Your task to perform on an android device: toggle improve location accuracy Image 0: 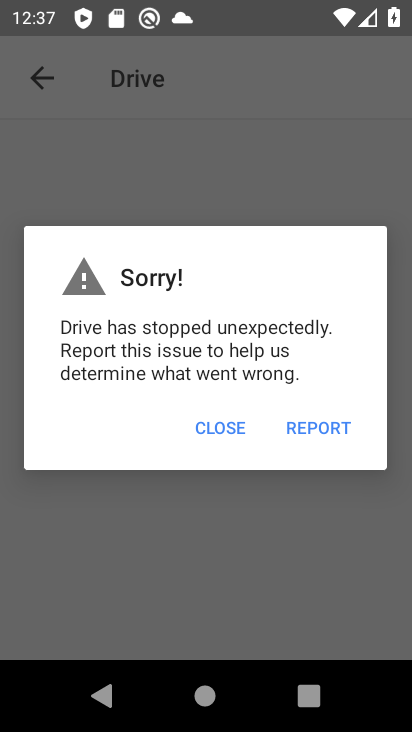
Step 0: press home button
Your task to perform on an android device: toggle improve location accuracy Image 1: 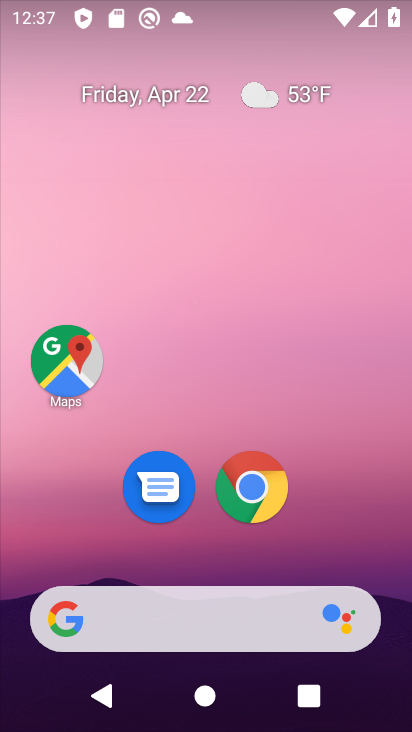
Step 1: drag from (147, 531) to (153, 37)
Your task to perform on an android device: toggle improve location accuracy Image 2: 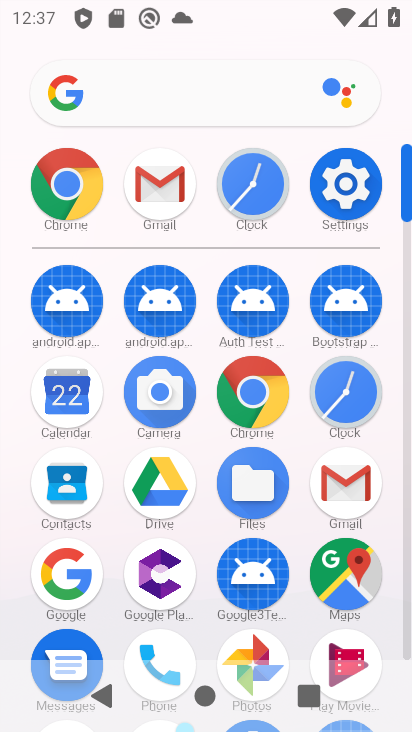
Step 2: click (369, 181)
Your task to perform on an android device: toggle improve location accuracy Image 3: 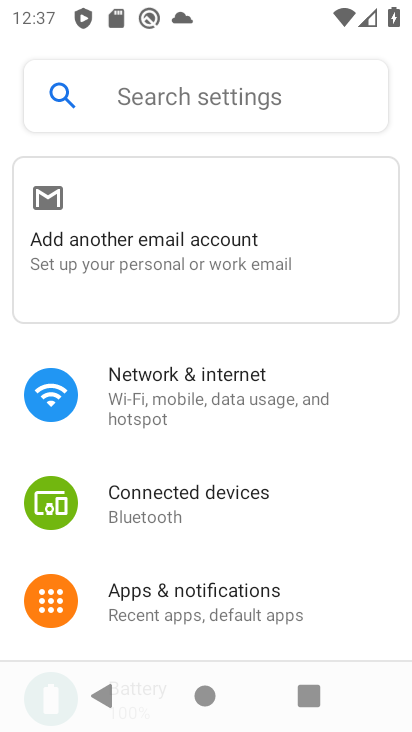
Step 3: drag from (83, 549) to (71, 198)
Your task to perform on an android device: toggle improve location accuracy Image 4: 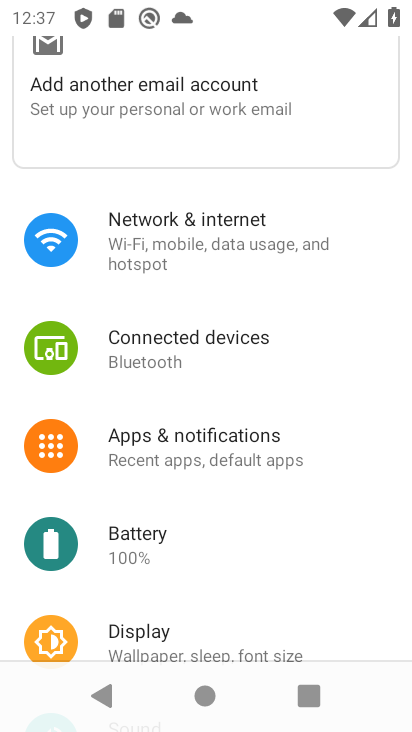
Step 4: drag from (86, 599) to (134, 208)
Your task to perform on an android device: toggle improve location accuracy Image 5: 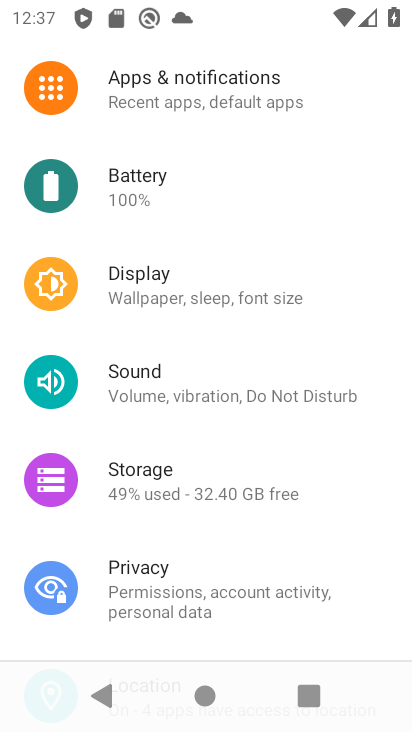
Step 5: drag from (69, 653) to (168, 186)
Your task to perform on an android device: toggle improve location accuracy Image 6: 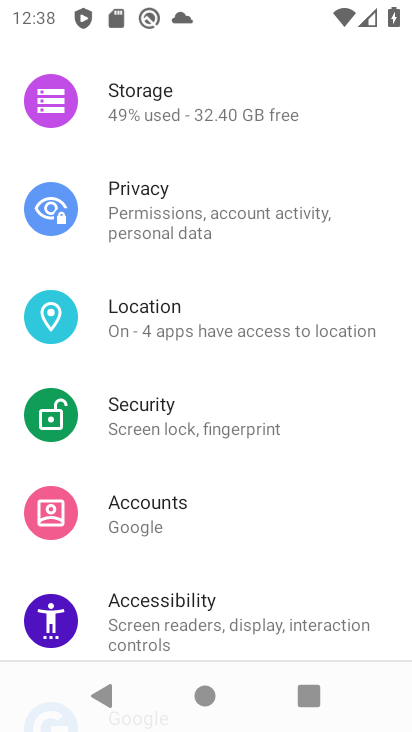
Step 6: click (178, 350)
Your task to perform on an android device: toggle improve location accuracy Image 7: 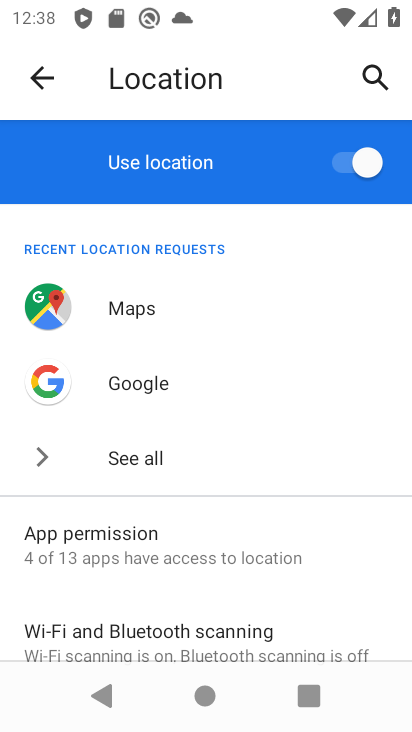
Step 7: drag from (142, 621) to (127, 471)
Your task to perform on an android device: toggle improve location accuracy Image 8: 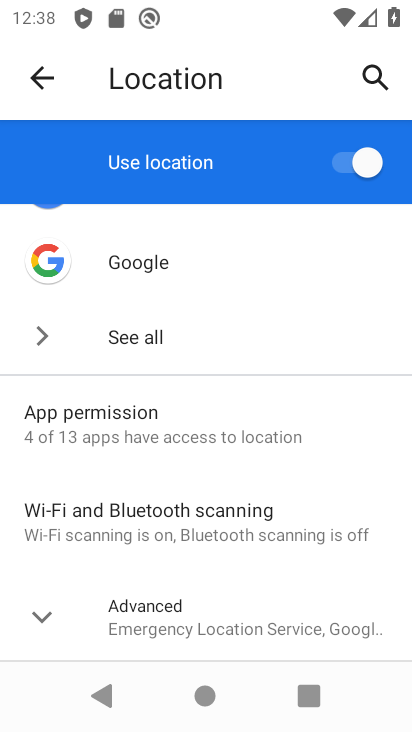
Step 8: click (145, 619)
Your task to perform on an android device: toggle improve location accuracy Image 9: 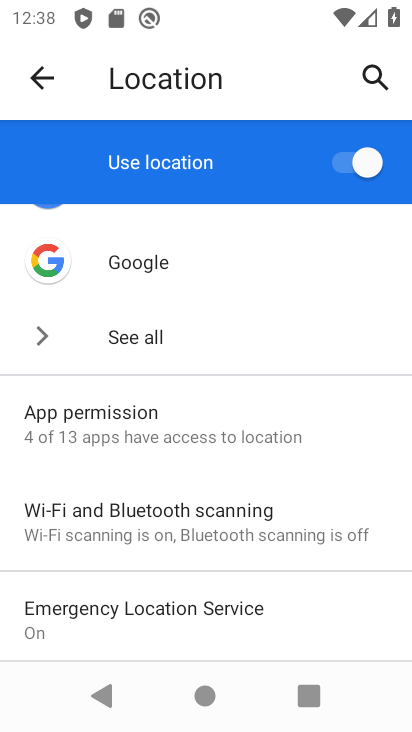
Step 9: drag from (209, 579) to (217, 207)
Your task to perform on an android device: toggle improve location accuracy Image 10: 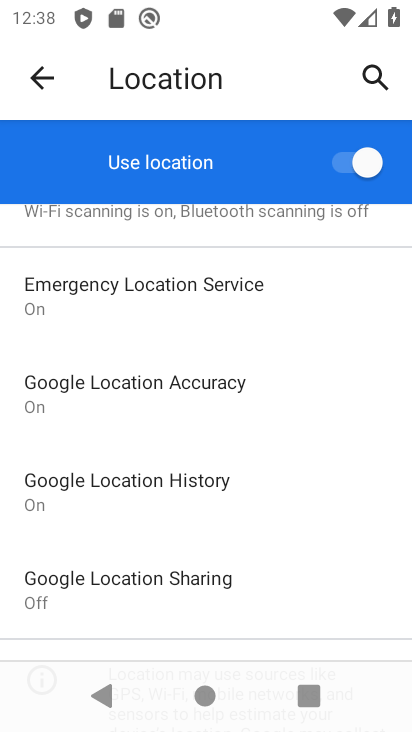
Step 10: click (198, 407)
Your task to perform on an android device: toggle improve location accuracy Image 11: 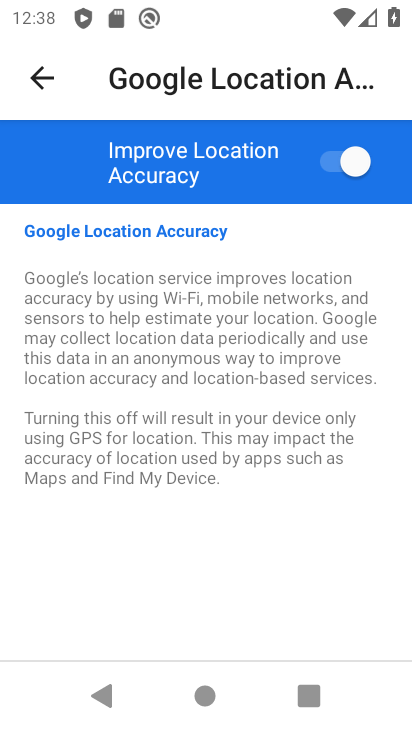
Step 11: click (345, 154)
Your task to perform on an android device: toggle improve location accuracy Image 12: 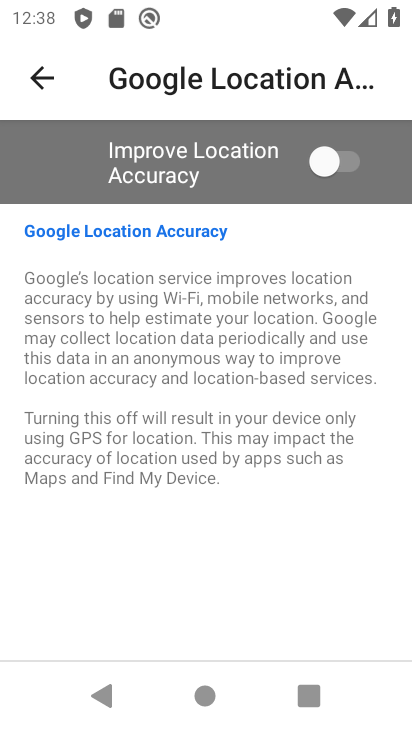
Step 12: click (345, 154)
Your task to perform on an android device: toggle improve location accuracy Image 13: 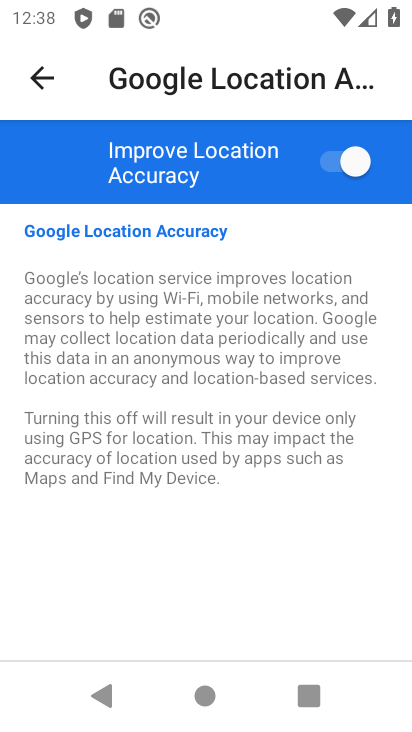
Step 13: task complete